Your task to perform on an android device: change notifications settings Image 0: 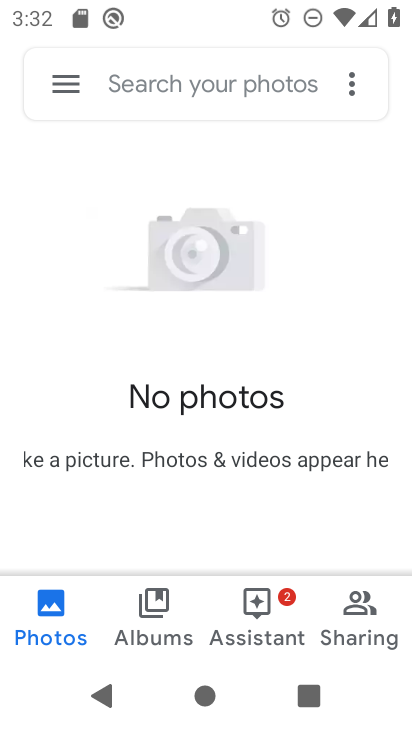
Step 0: press home button
Your task to perform on an android device: change notifications settings Image 1: 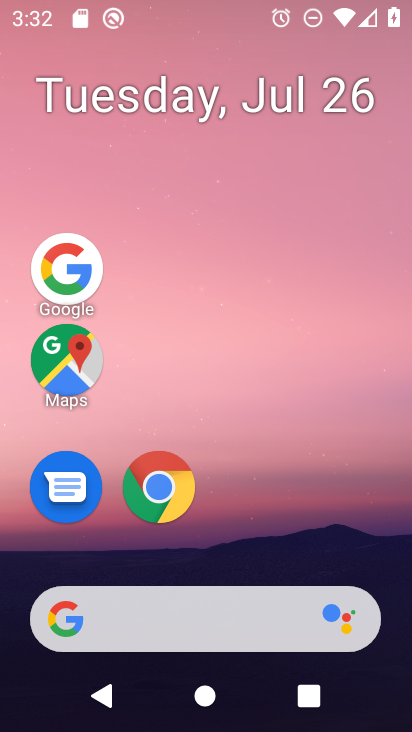
Step 1: drag from (185, 648) to (197, 315)
Your task to perform on an android device: change notifications settings Image 2: 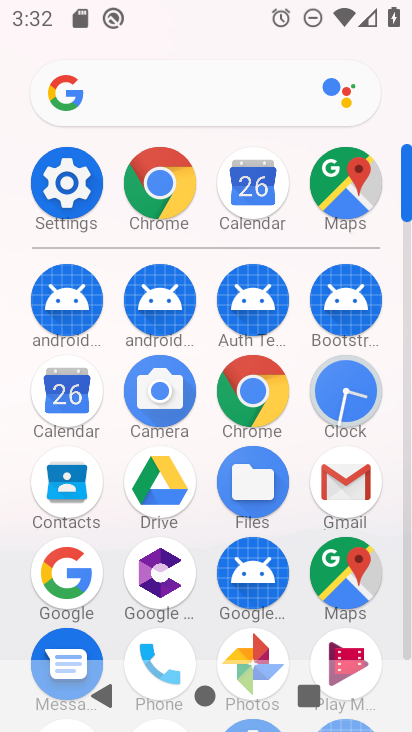
Step 2: click (87, 199)
Your task to perform on an android device: change notifications settings Image 3: 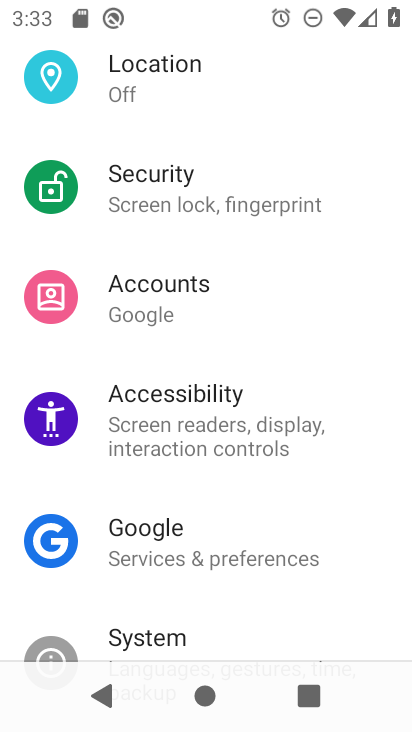
Step 3: drag from (166, 476) to (131, 731)
Your task to perform on an android device: change notifications settings Image 4: 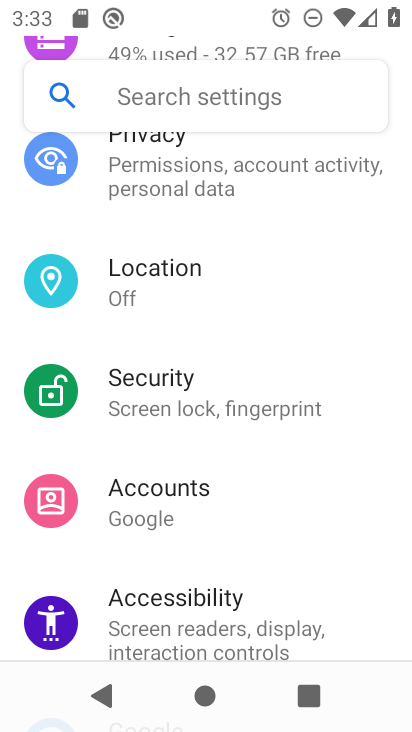
Step 4: drag from (174, 334) to (85, 728)
Your task to perform on an android device: change notifications settings Image 5: 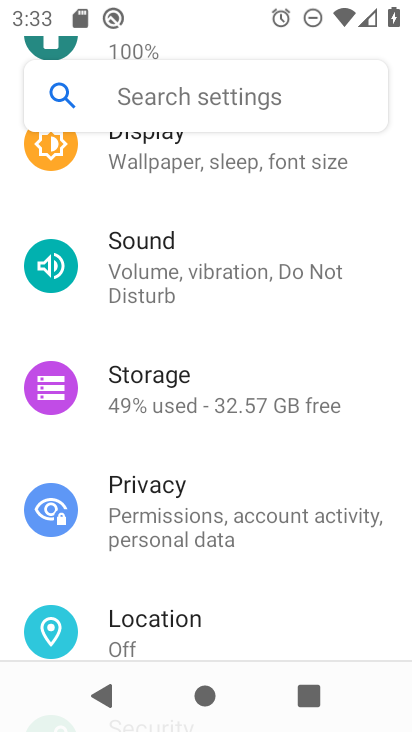
Step 5: drag from (137, 409) to (119, 724)
Your task to perform on an android device: change notifications settings Image 6: 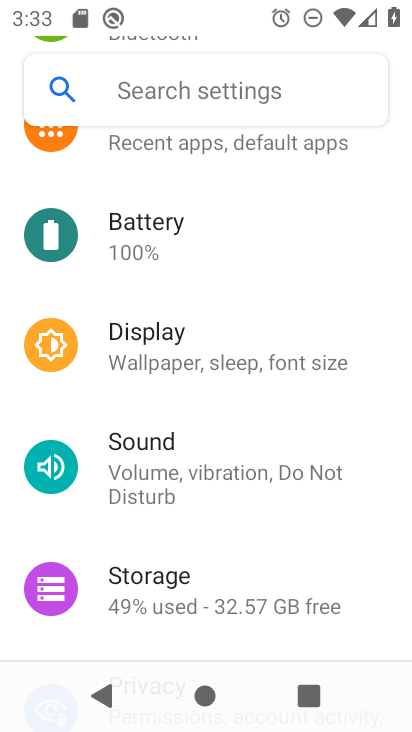
Step 6: drag from (167, 323) to (169, 689)
Your task to perform on an android device: change notifications settings Image 7: 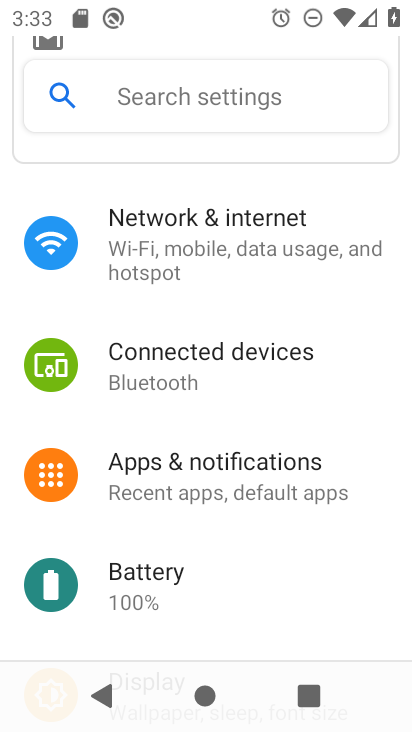
Step 7: click (219, 476)
Your task to perform on an android device: change notifications settings Image 8: 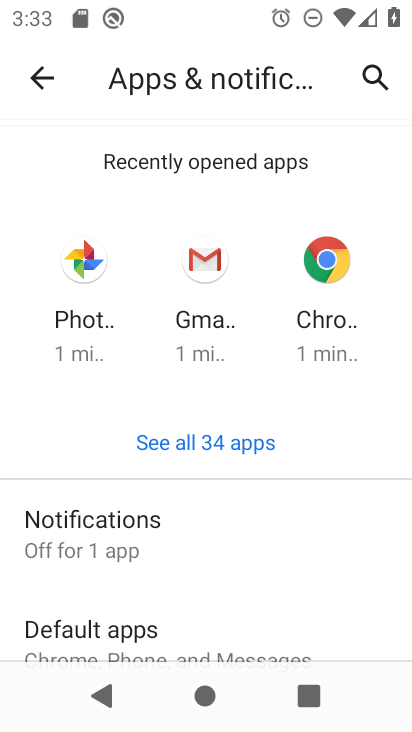
Step 8: click (173, 536)
Your task to perform on an android device: change notifications settings Image 9: 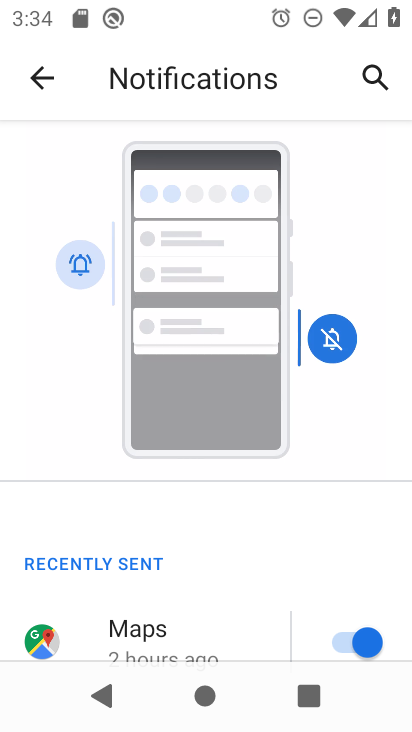
Step 9: drag from (217, 508) to (270, 179)
Your task to perform on an android device: change notifications settings Image 10: 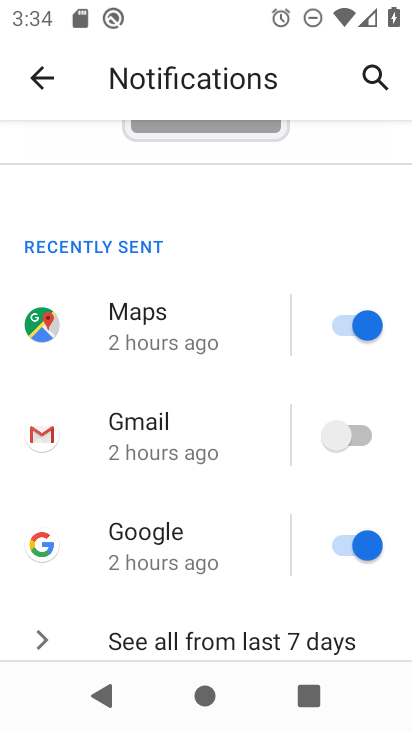
Step 10: click (370, 452)
Your task to perform on an android device: change notifications settings Image 11: 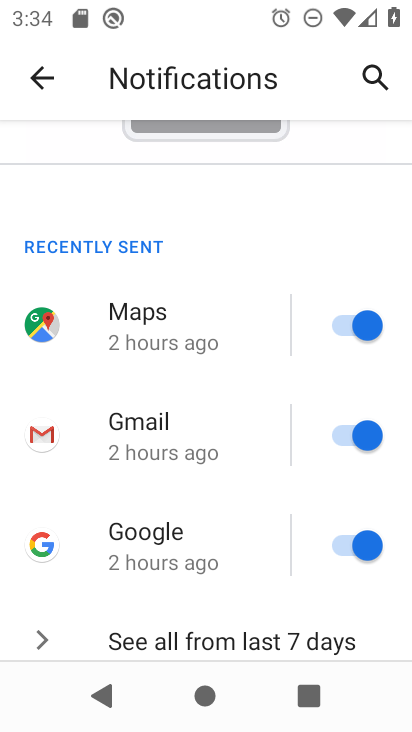
Step 11: task complete